Your task to perform on an android device: What's the weather going to be tomorrow? Image 0: 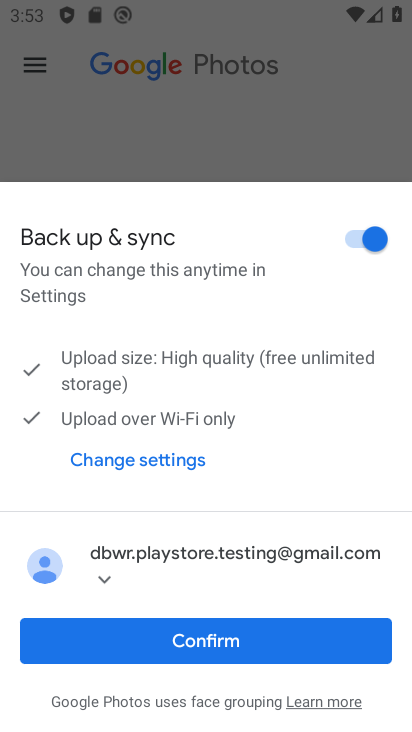
Step 0: click (178, 652)
Your task to perform on an android device: What's the weather going to be tomorrow? Image 1: 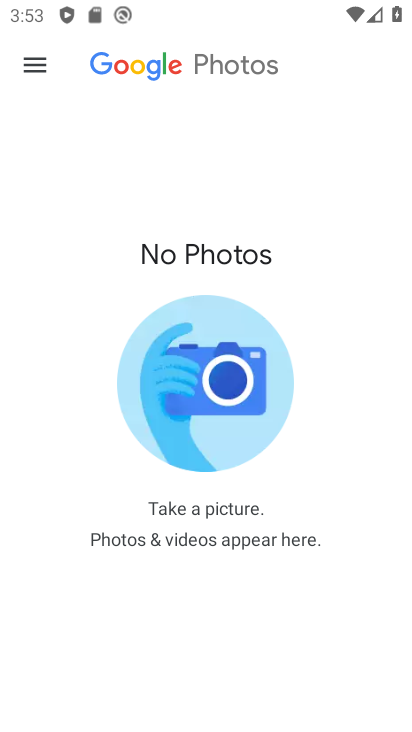
Step 1: press home button
Your task to perform on an android device: What's the weather going to be tomorrow? Image 2: 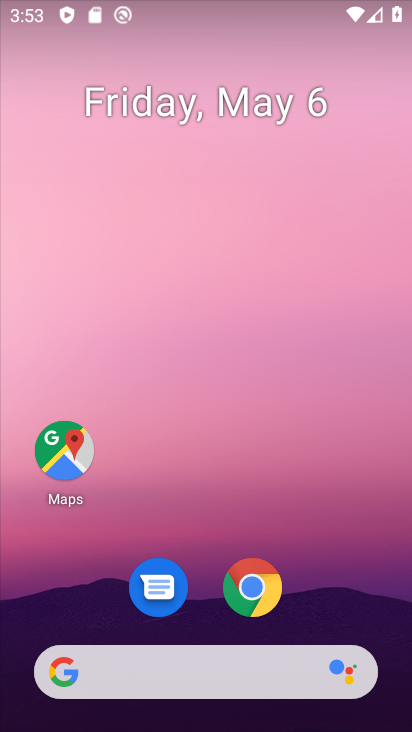
Step 2: drag from (236, 720) to (298, 324)
Your task to perform on an android device: What's the weather going to be tomorrow? Image 3: 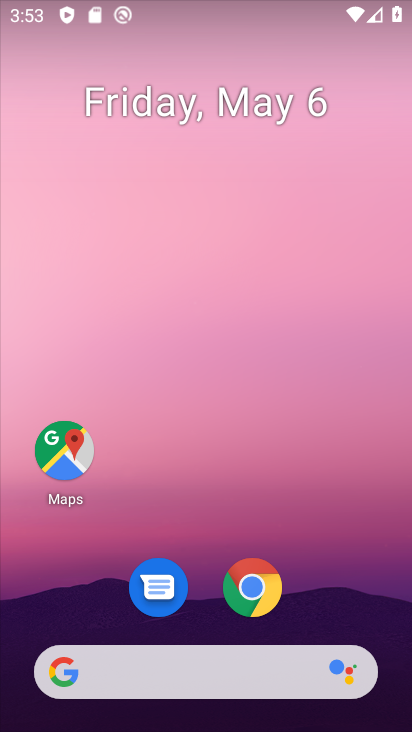
Step 3: drag from (291, 713) to (236, 180)
Your task to perform on an android device: What's the weather going to be tomorrow? Image 4: 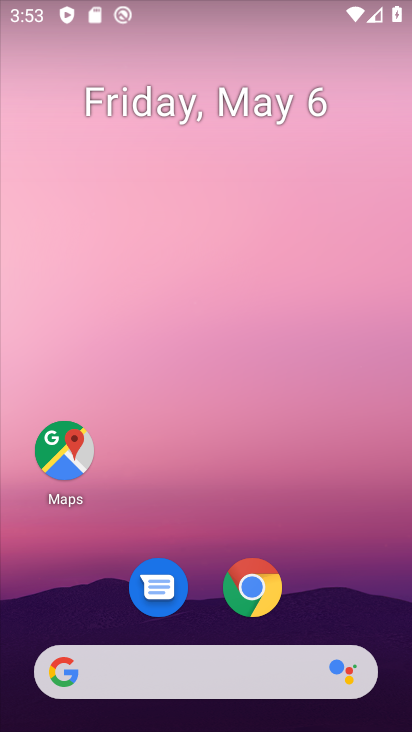
Step 4: drag from (309, 694) to (239, 154)
Your task to perform on an android device: What's the weather going to be tomorrow? Image 5: 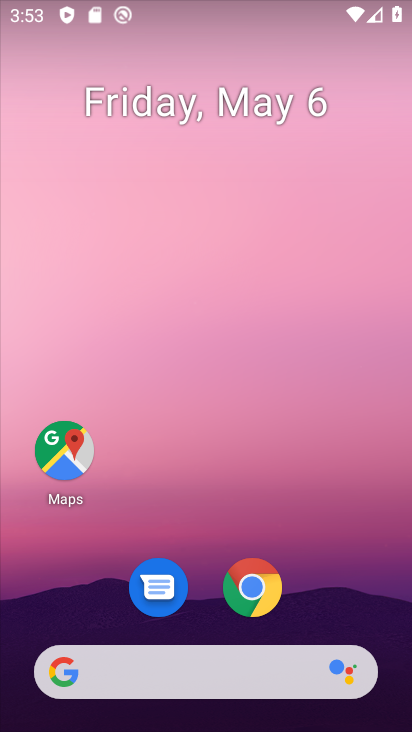
Step 5: drag from (228, 686) to (278, 46)
Your task to perform on an android device: What's the weather going to be tomorrow? Image 6: 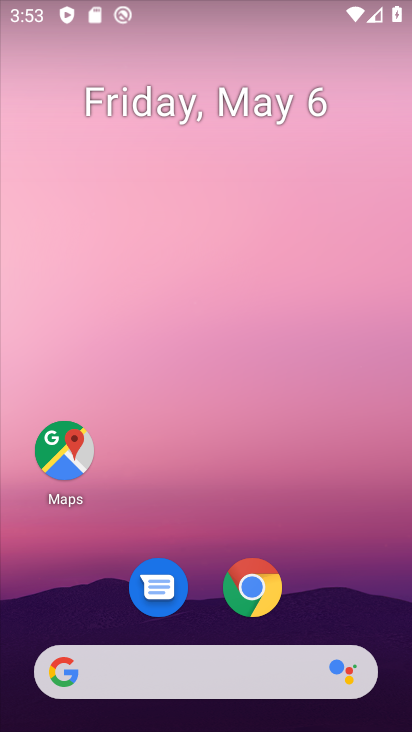
Step 6: click (260, 395)
Your task to perform on an android device: What's the weather going to be tomorrow? Image 7: 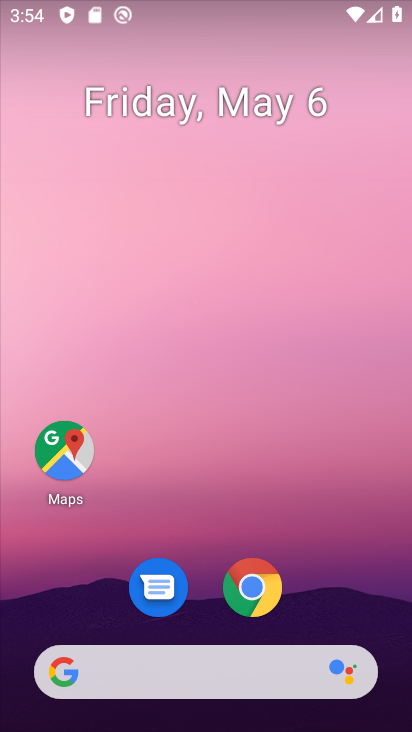
Step 7: drag from (250, 702) to (263, 160)
Your task to perform on an android device: What's the weather going to be tomorrow? Image 8: 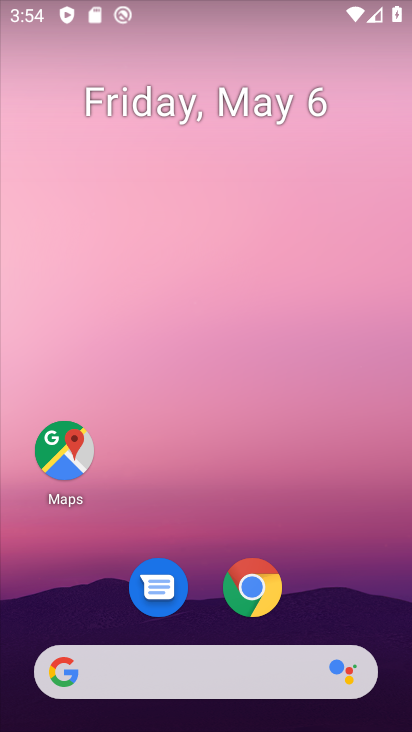
Step 8: click (246, 686)
Your task to perform on an android device: What's the weather going to be tomorrow? Image 9: 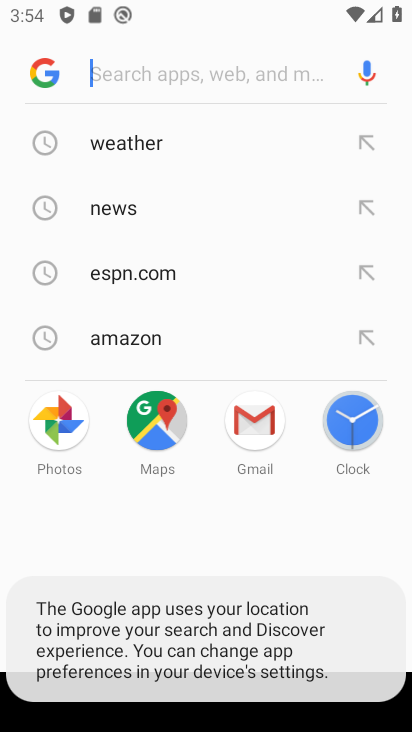
Step 9: click (116, 141)
Your task to perform on an android device: What's the weather going to be tomorrow? Image 10: 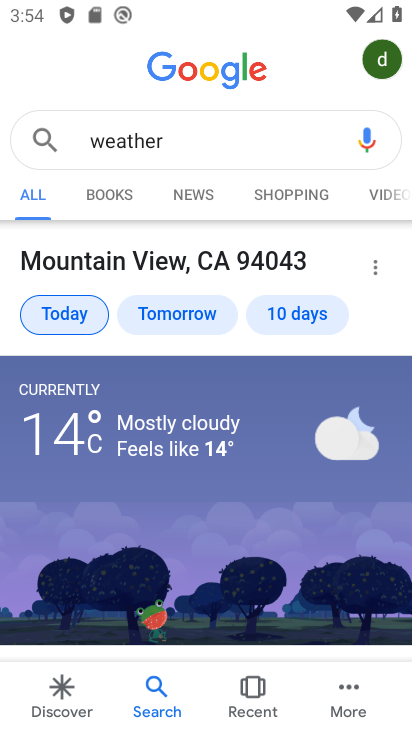
Step 10: click (162, 305)
Your task to perform on an android device: What's the weather going to be tomorrow? Image 11: 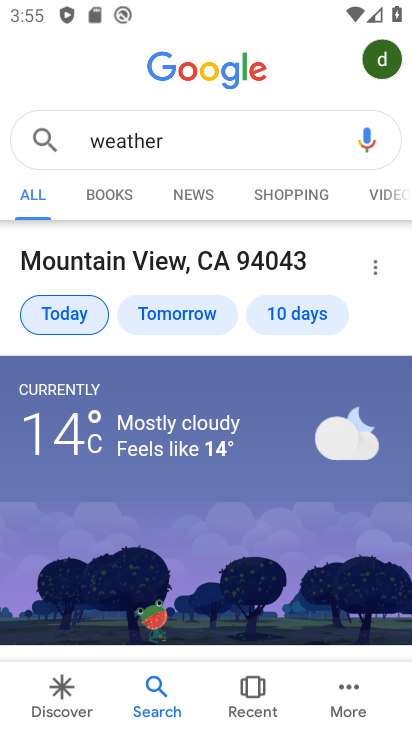
Step 11: click (191, 308)
Your task to perform on an android device: What's the weather going to be tomorrow? Image 12: 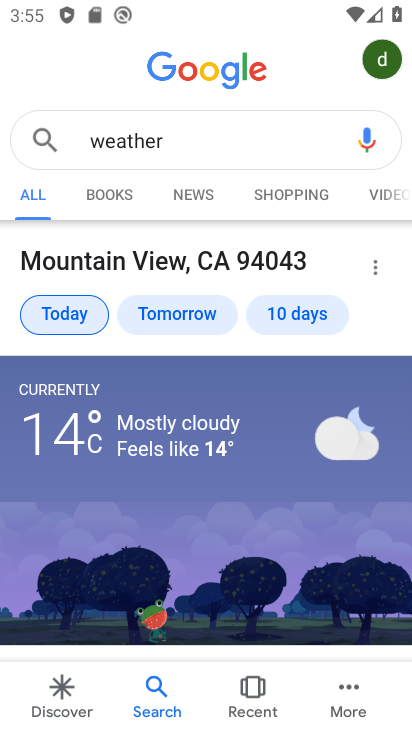
Step 12: click (226, 504)
Your task to perform on an android device: What's the weather going to be tomorrow? Image 13: 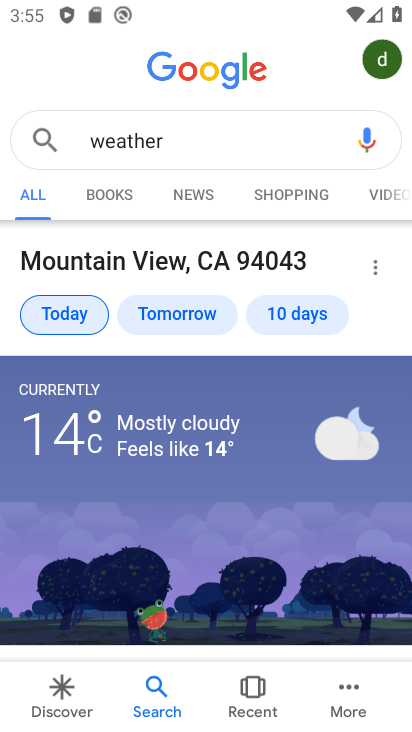
Step 13: click (144, 312)
Your task to perform on an android device: What's the weather going to be tomorrow? Image 14: 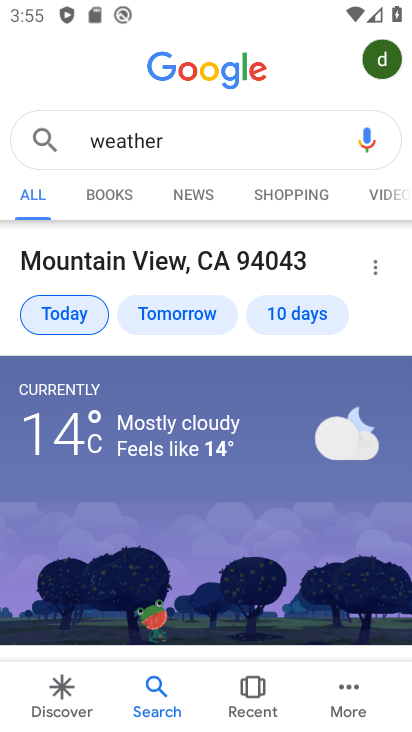
Step 14: click (144, 312)
Your task to perform on an android device: What's the weather going to be tomorrow? Image 15: 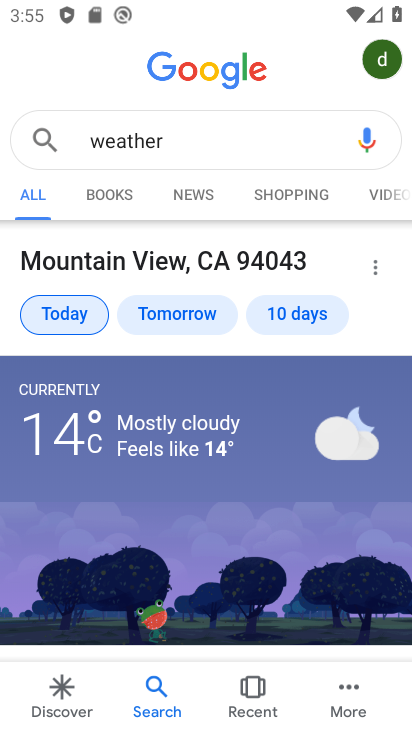
Step 15: task complete